Your task to perform on an android device: check android version Image 0: 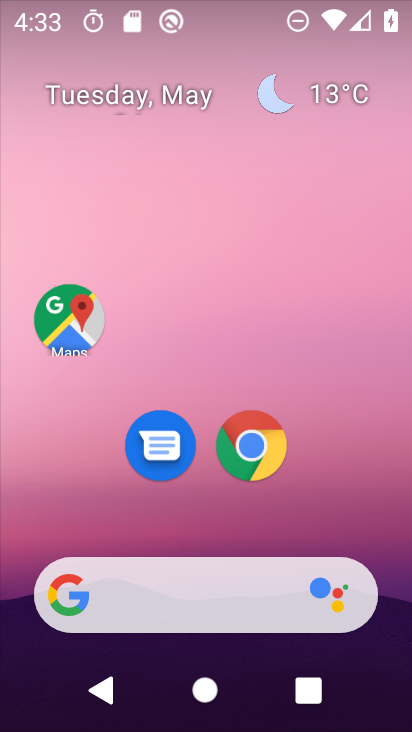
Step 0: press home button
Your task to perform on an android device: check android version Image 1: 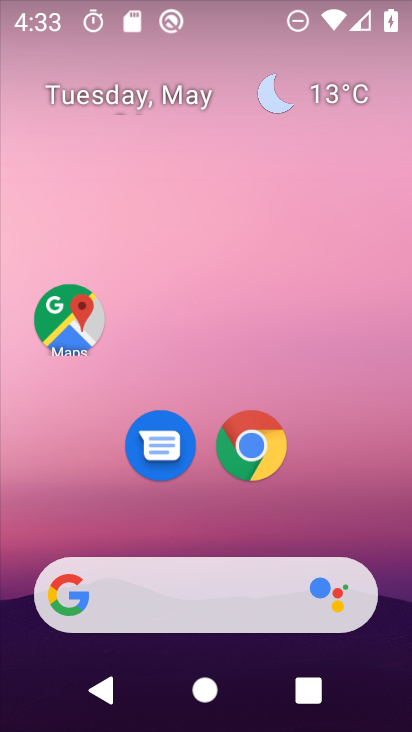
Step 1: drag from (208, 531) to (192, 135)
Your task to perform on an android device: check android version Image 2: 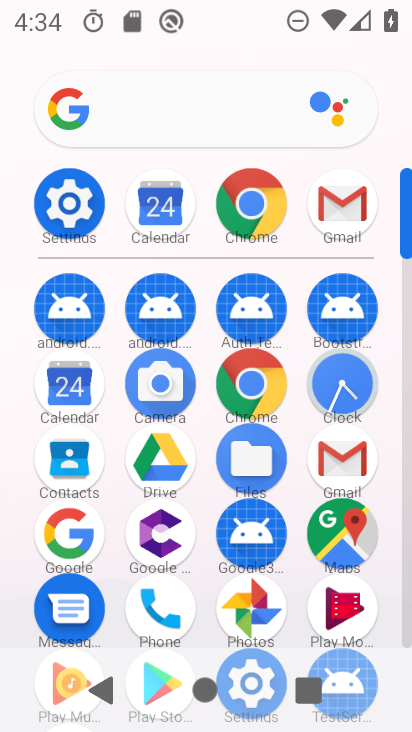
Step 2: click (68, 201)
Your task to perform on an android device: check android version Image 3: 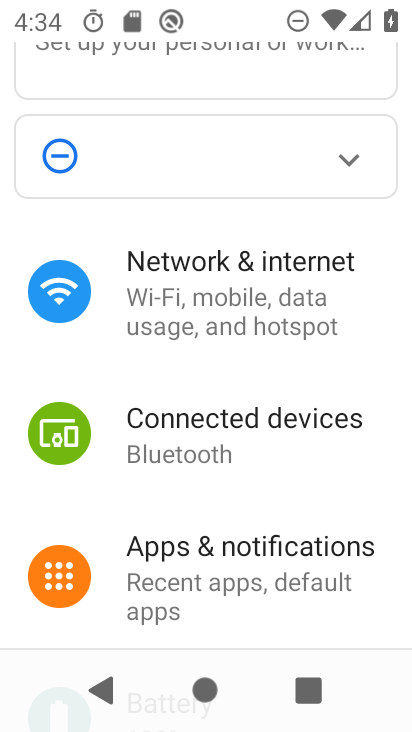
Step 3: drag from (242, 617) to (272, 110)
Your task to perform on an android device: check android version Image 4: 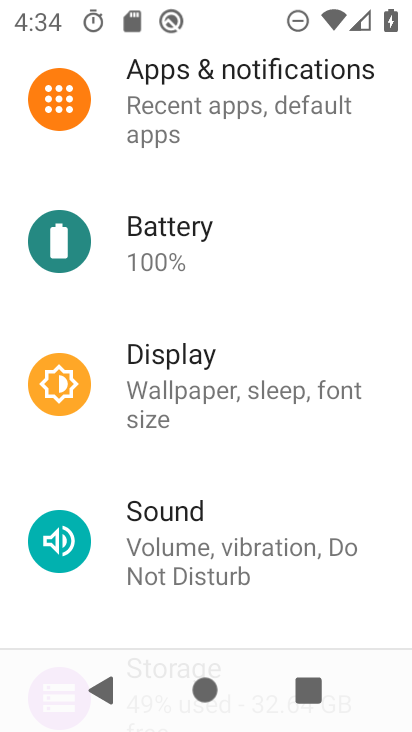
Step 4: drag from (228, 610) to (255, 81)
Your task to perform on an android device: check android version Image 5: 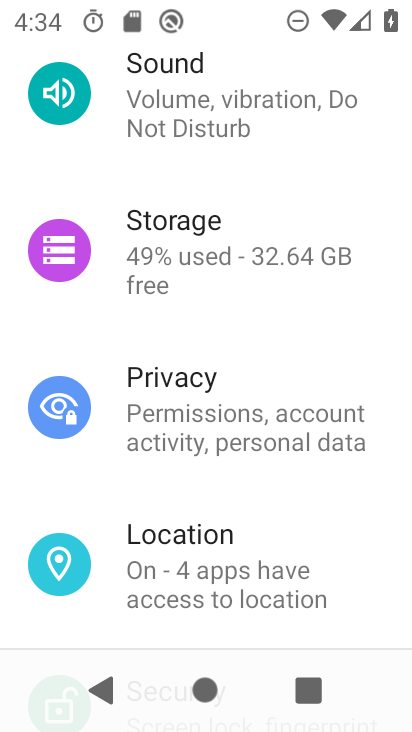
Step 5: click (235, 105)
Your task to perform on an android device: check android version Image 6: 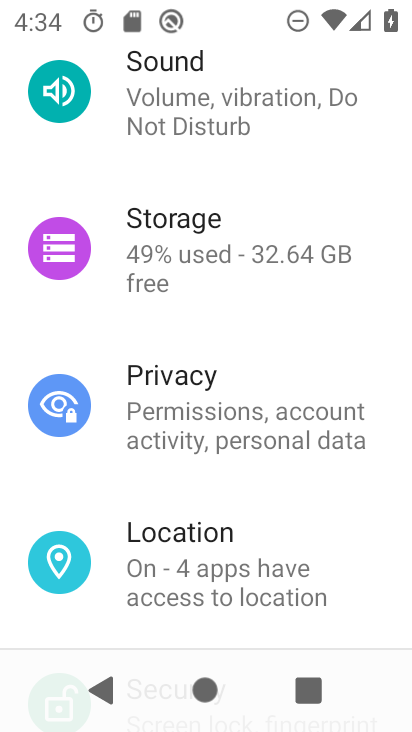
Step 6: drag from (117, 593) to (93, 74)
Your task to perform on an android device: check android version Image 7: 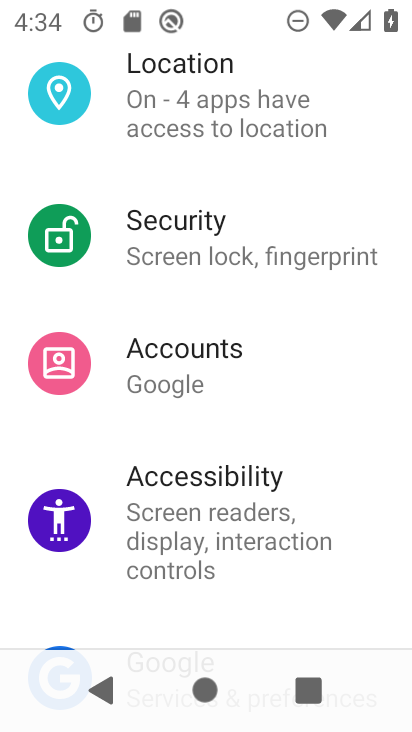
Step 7: drag from (115, 602) to (126, 32)
Your task to perform on an android device: check android version Image 8: 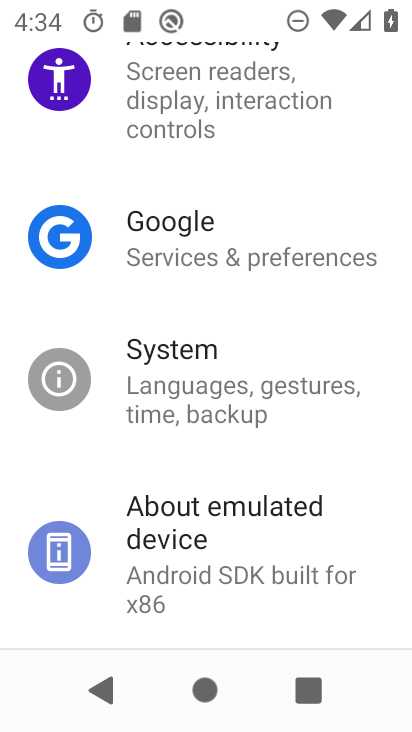
Step 8: click (242, 548)
Your task to perform on an android device: check android version Image 9: 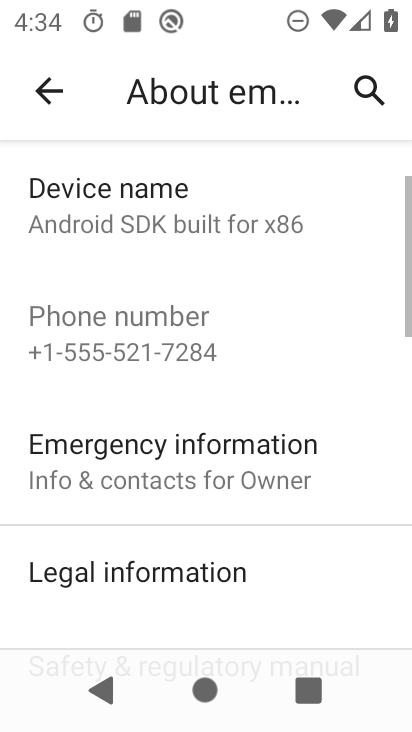
Step 9: drag from (197, 602) to (219, 178)
Your task to perform on an android device: check android version Image 10: 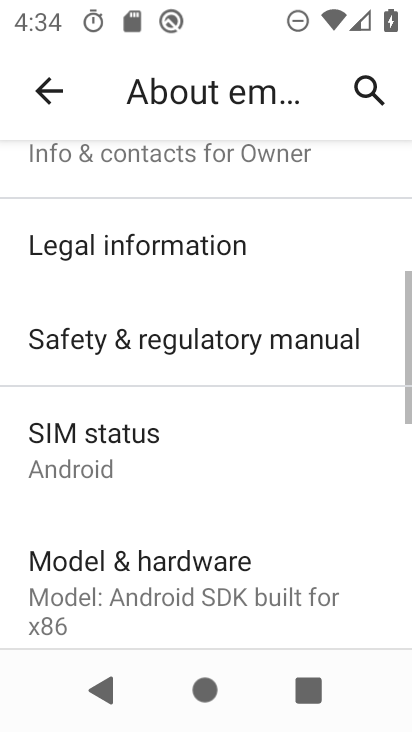
Step 10: drag from (212, 623) to (225, 152)
Your task to perform on an android device: check android version Image 11: 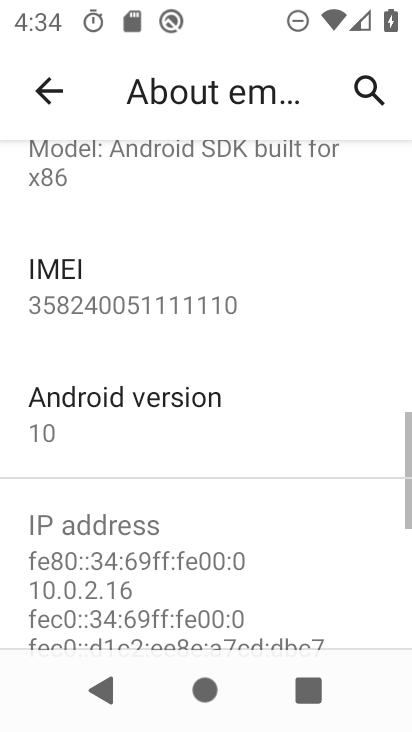
Step 11: click (101, 431)
Your task to perform on an android device: check android version Image 12: 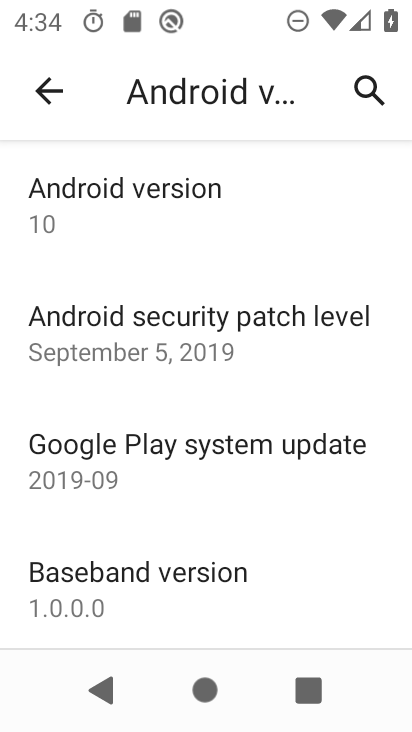
Step 12: task complete